Your task to perform on an android device: Open privacy settings Image 0: 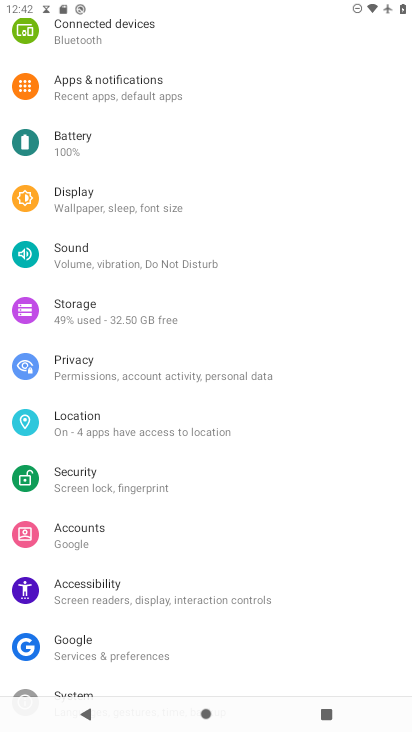
Step 0: press home button
Your task to perform on an android device: Open privacy settings Image 1: 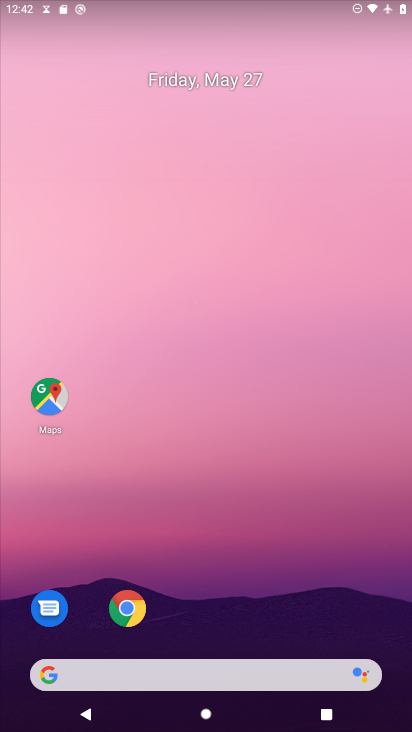
Step 1: drag from (176, 585) to (283, 112)
Your task to perform on an android device: Open privacy settings Image 2: 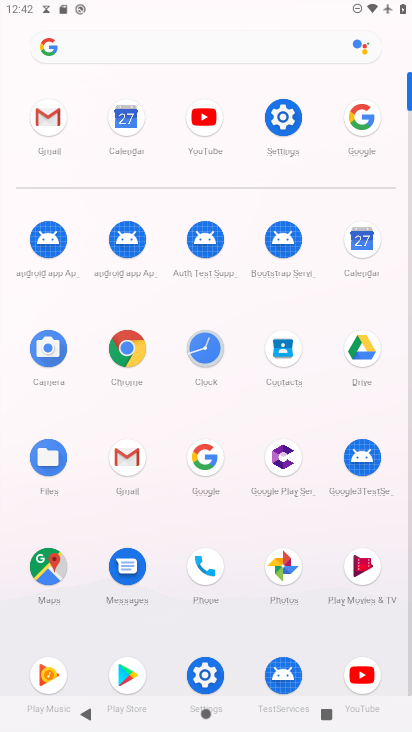
Step 2: click (285, 138)
Your task to perform on an android device: Open privacy settings Image 3: 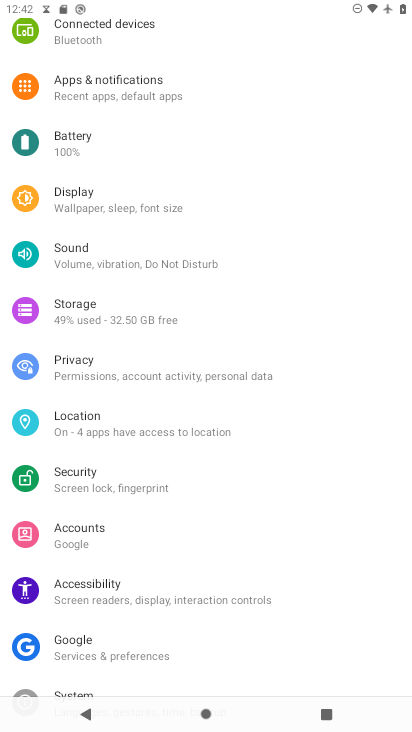
Step 3: click (95, 367)
Your task to perform on an android device: Open privacy settings Image 4: 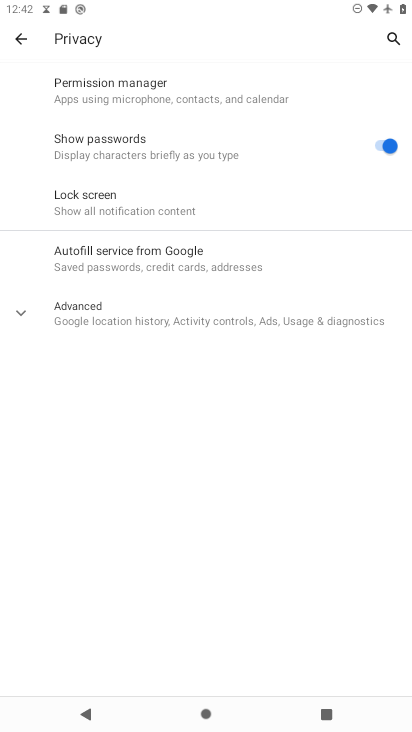
Step 4: task complete